Your task to perform on an android device: set default search engine in the chrome app Image 0: 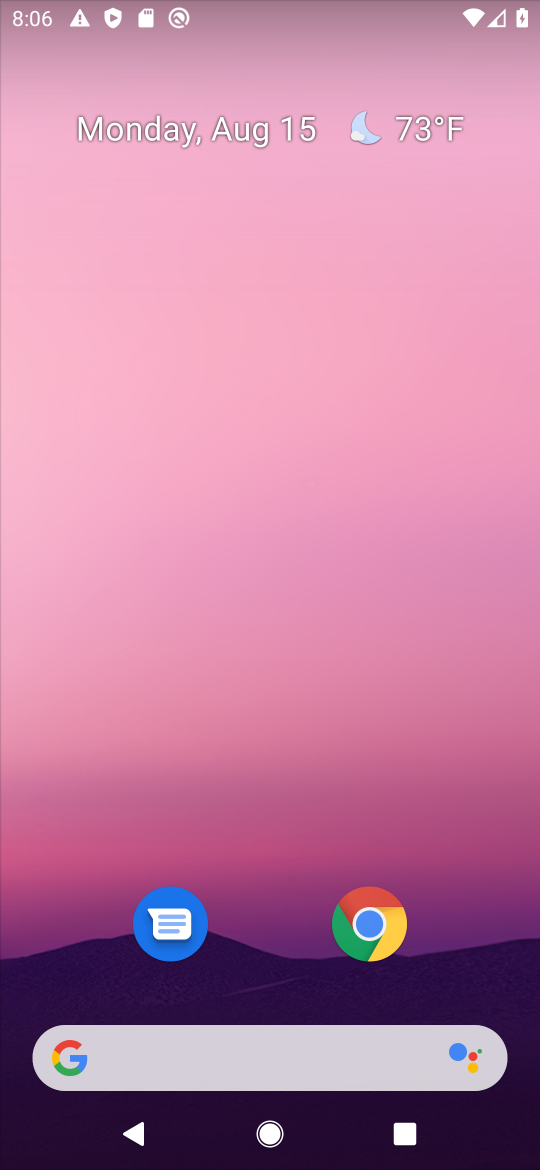
Step 0: click (366, 930)
Your task to perform on an android device: set default search engine in the chrome app Image 1: 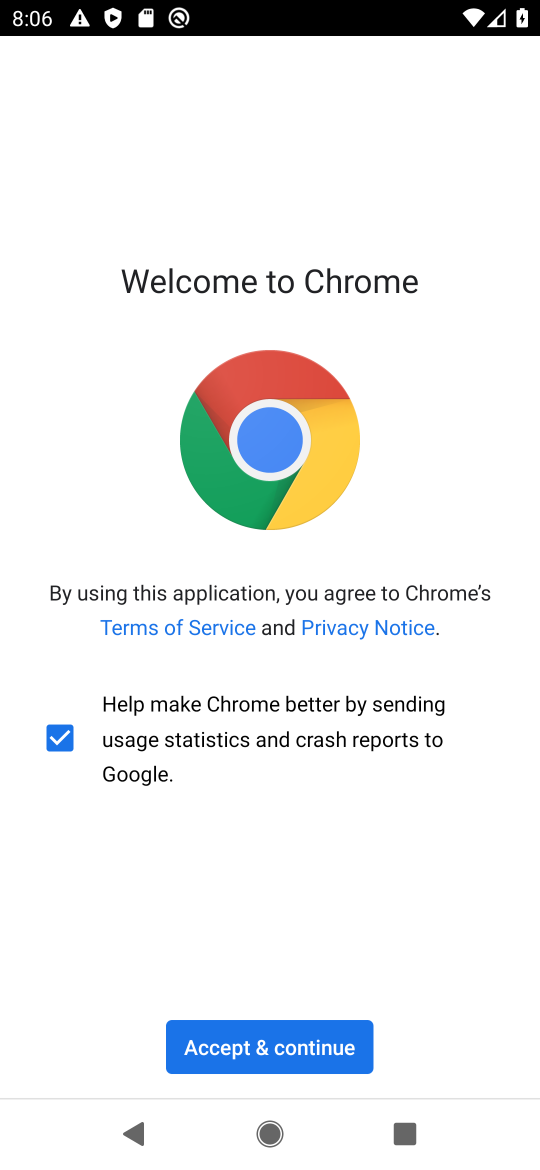
Step 1: click (261, 1044)
Your task to perform on an android device: set default search engine in the chrome app Image 2: 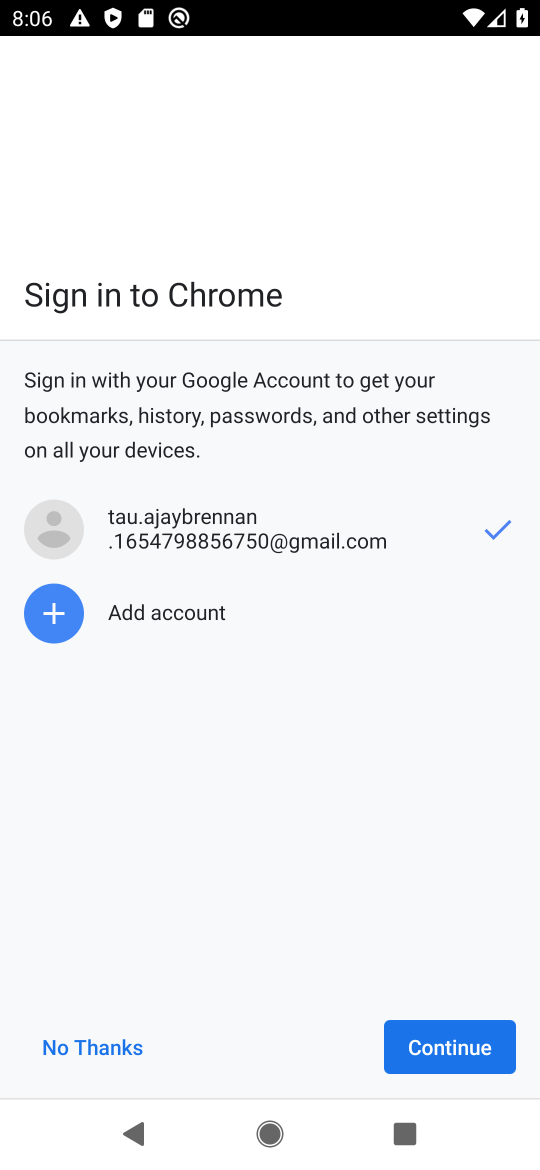
Step 2: click (461, 1053)
Your task to perform on an android device: set default search engine in the chrome app Image 3: 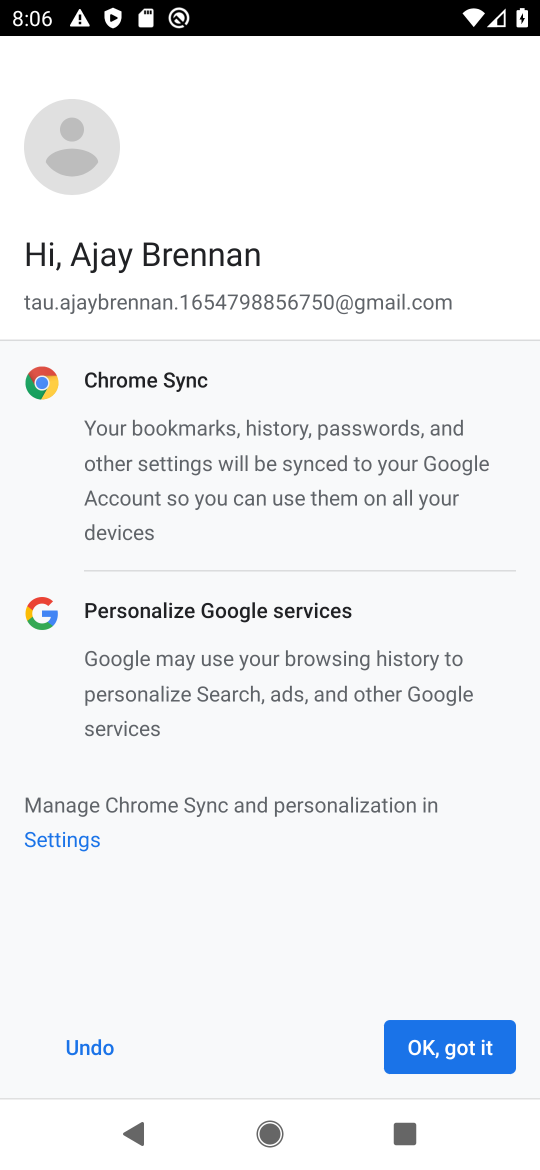
Step 3: click (446, 1049)
Your task to perform on an android device: set default search engine in the chrome app Image 4: 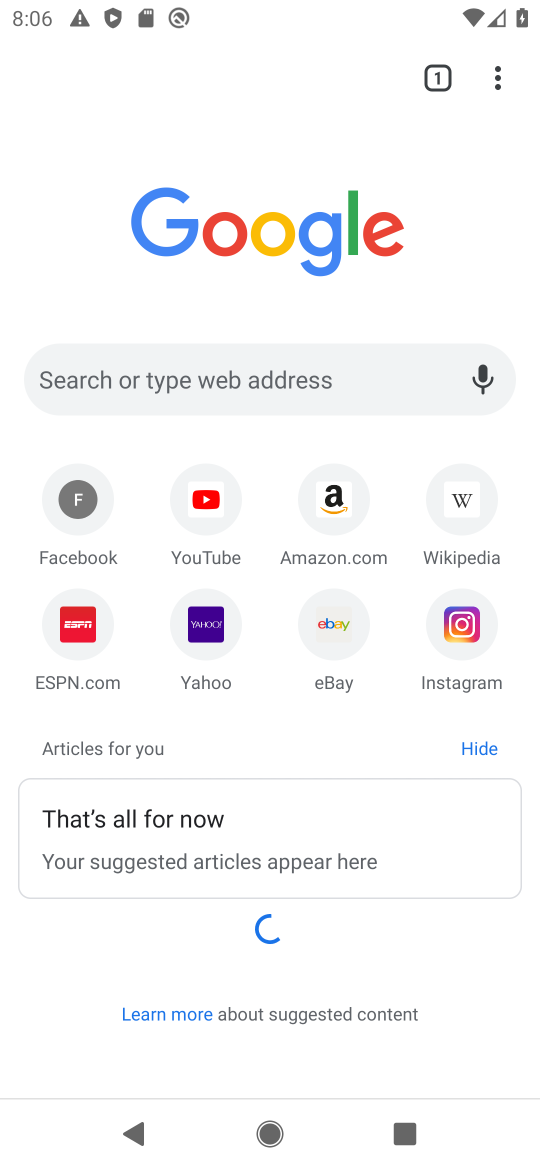
Step 4: click (492, 85)
Your task to perform on an android device: set default search engine in the chrome app Image 5: 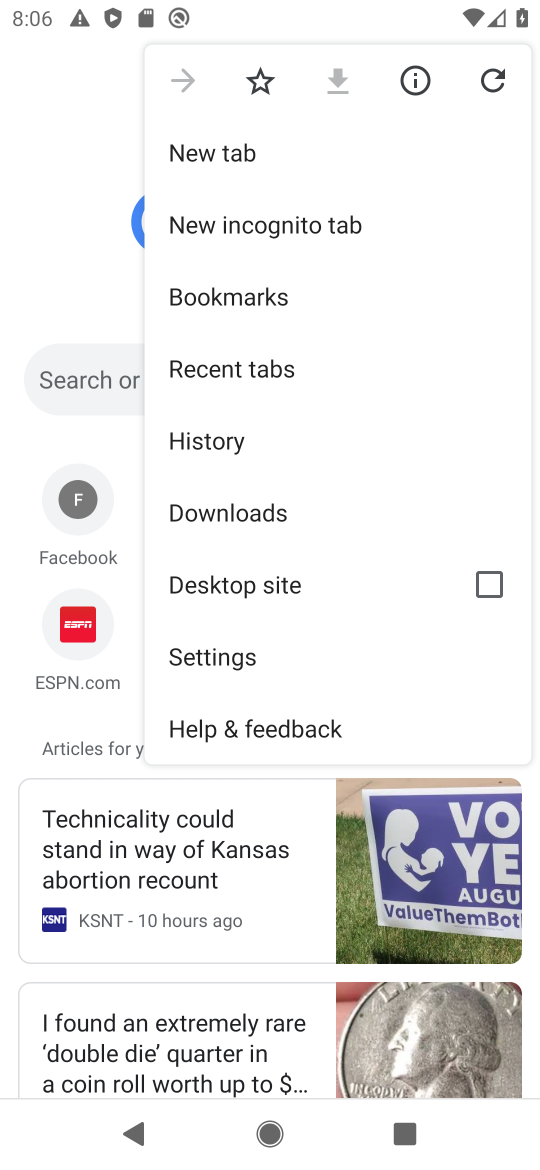
Step 5: click (205, 665)
Your task to perform on an android device: set default search engine in the chrome app Image 6: 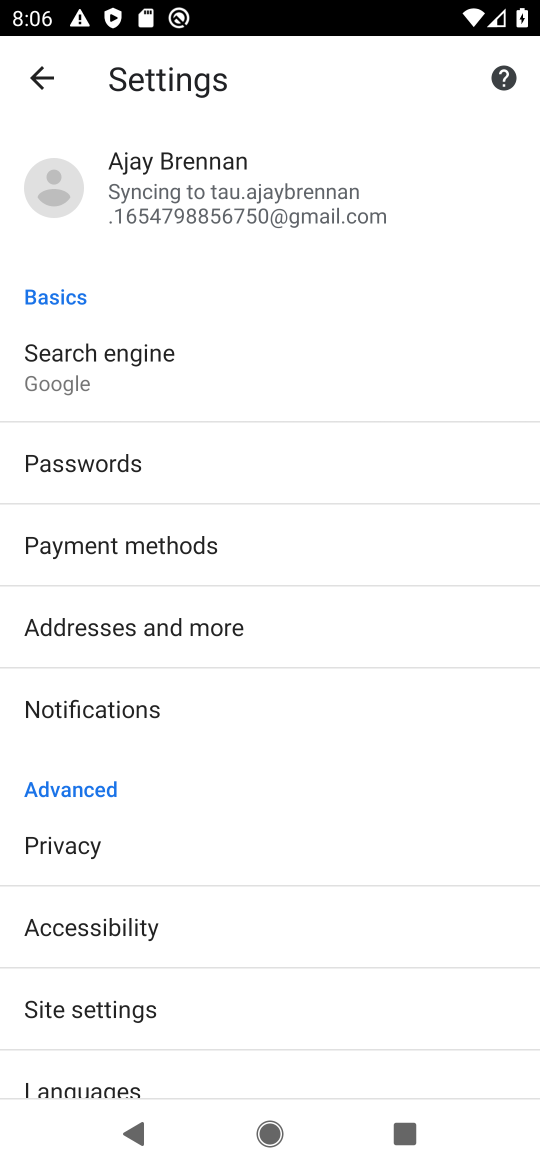
Step 6: click (76, 364)
Your task to perform on an android device: set default search engine in the chrome app Image 7: 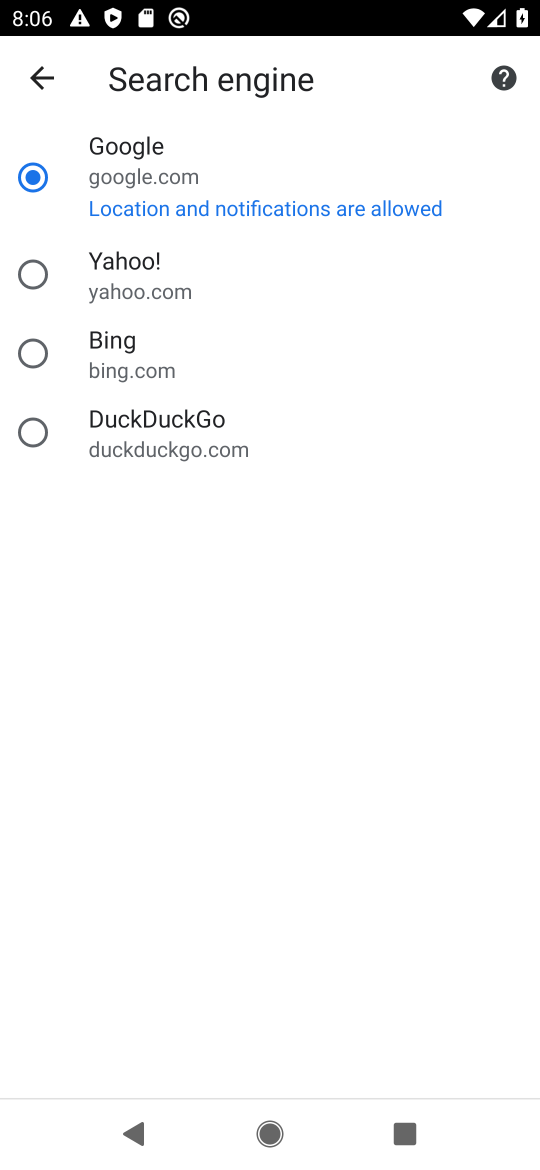
Step 7: click (31, 275)
Your task to perform on an android device: set default search engine in the chrome app Image 8: 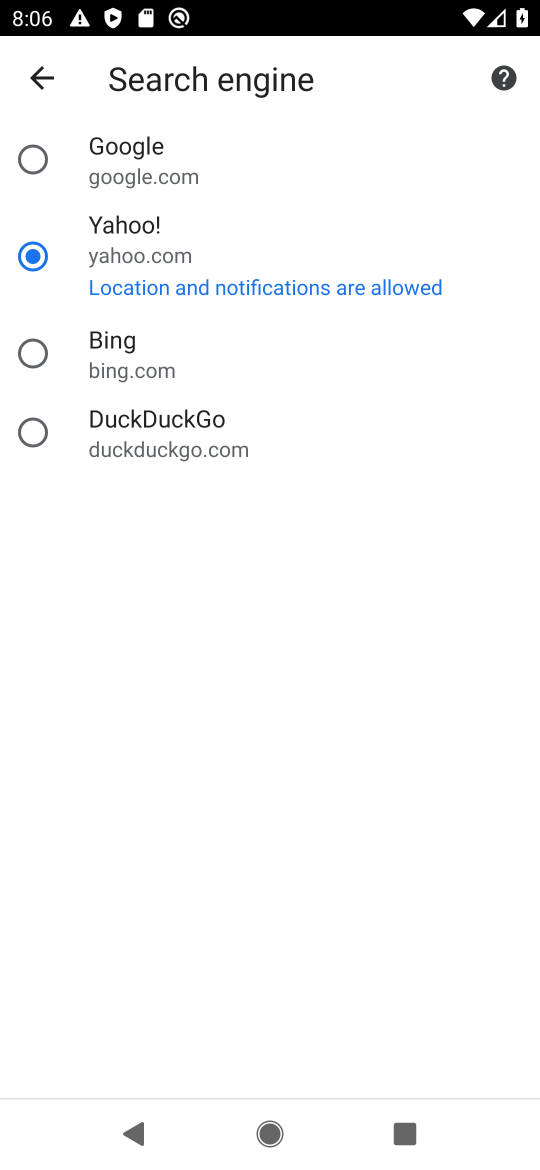
Step 8: task complete